Your task to perform on an android device: uninstall "Lyft - Rideshare, Bikes, Scooters & Transit" Image 0: 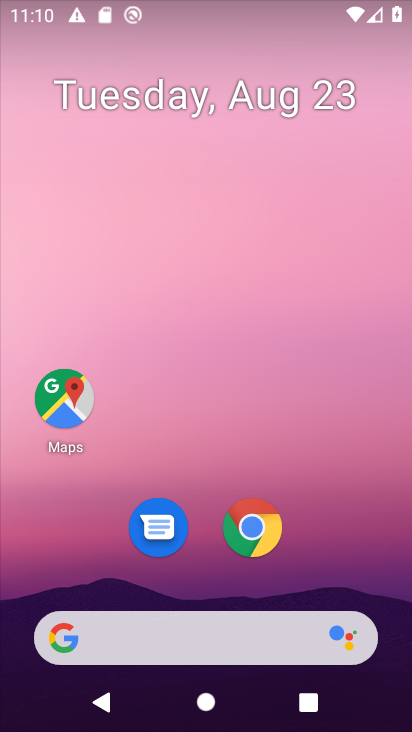
Step 0: drag from (214, 564) to (310, 7)
Your task to perform on an android device: uninstall "Lyft - Rideshare, Bikes, Scooters & Transit" Image 1: 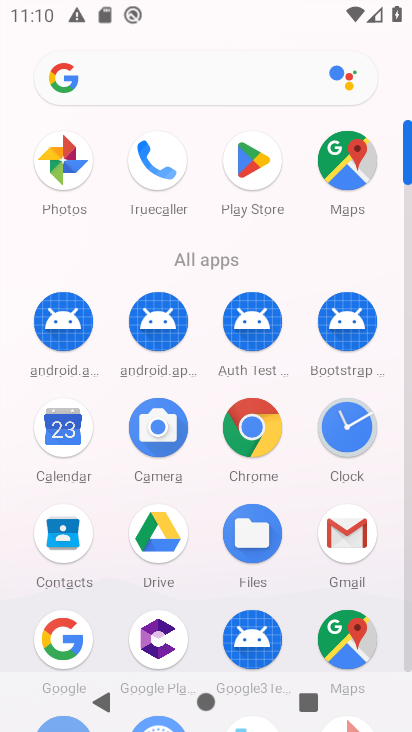
Step 1: click (251, 163)
Your task to perform on an android device: uninstall "Lyft - Rideshare, Bikes, Scooters & Transit" Image 2: 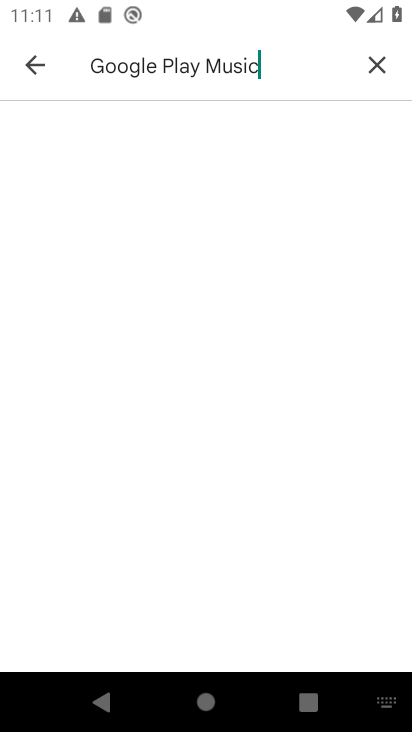
Step 2: click (377, 61)
Your task to perform on an android device: uninstall "Lyft - Rideshare, Bikes, Scooters & Transit" Image 3: 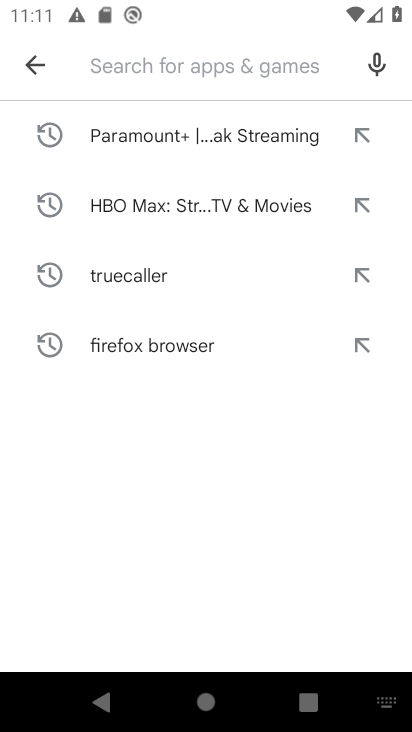
Step 3: press back button
Your task to perform on an android device: uninstall "Lyft - Rideshare, Bikes, Scooters & Transit" Image 4: 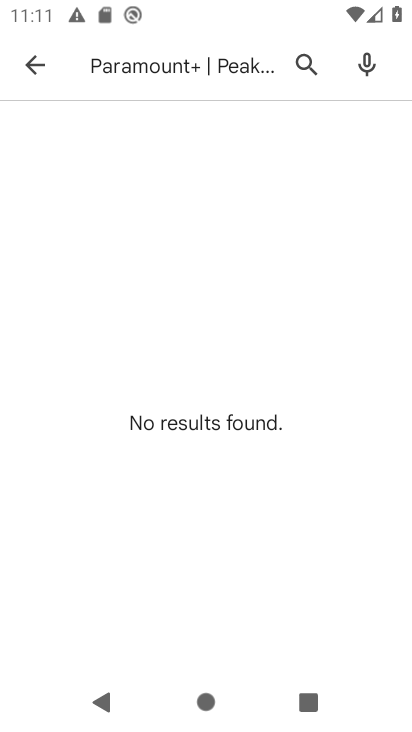
Step 4: click (18, 58)
Your task to perform on an android device: uninstall "Lyft - Rideshare, Bikes, Scooters & Transit" Image 5: 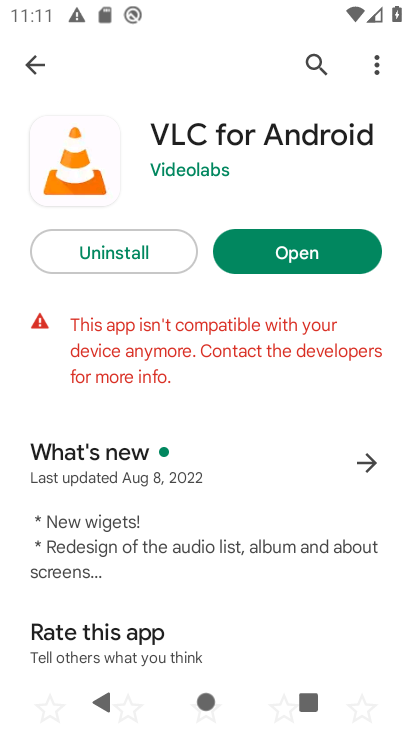
Step 5: press back button
Your task to perform on an android device: uninstall "Lyft - Rideshare, Bikes, Scooters & Transit" Image 6: 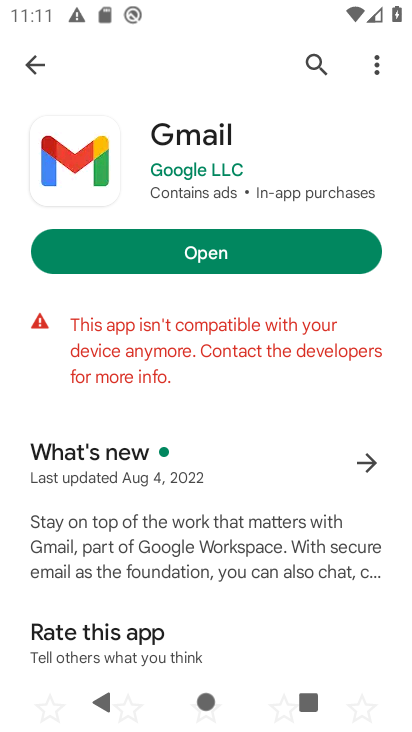
Step 6: press back button
Your task to perform on an android device: uninstall "Lyft - Rideshare, Bikes, Scooters & Transit" Image 7: 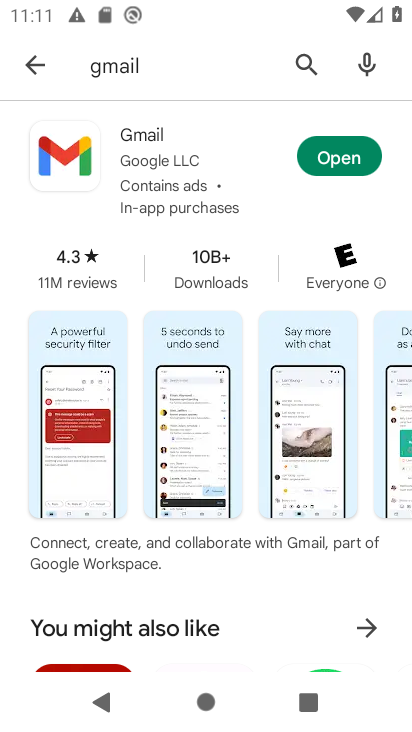
Step 7: press back button
Your task to perform on an android device: uninstall "Lyft - Rideshare, Bikes, Scooters & Transit" Image 8: 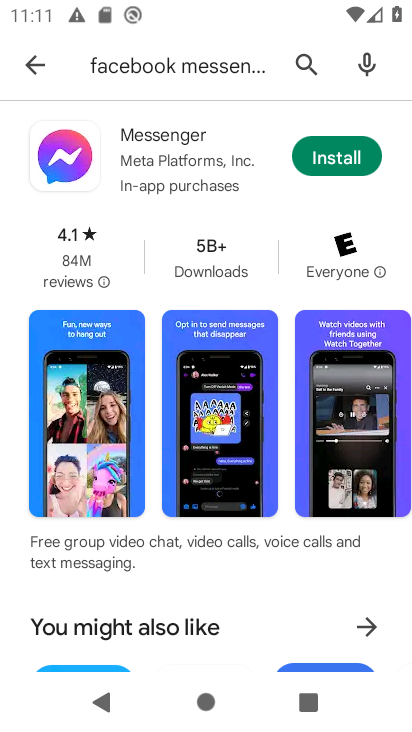
Step 8: press back button
Your task to perform on an android device: uninstall "Lyft - Rideshare, Bikes, Scooters & Transit" Image 9: 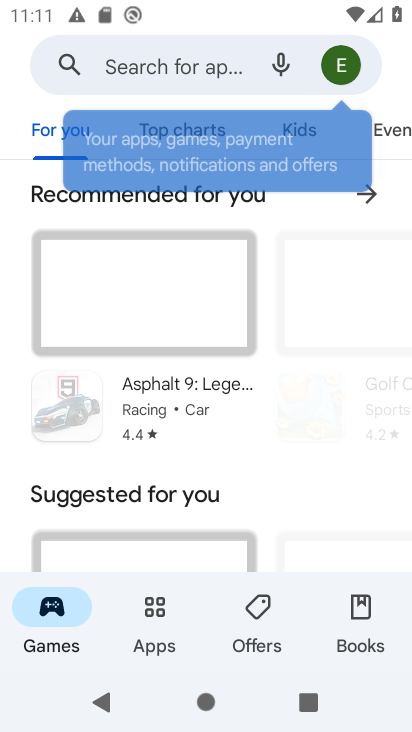
Step 9: click (145, 625)
Your task to perform on an android device: uninstall "Lyft - Rideshare, Bikes, Scooters & Transit" Image 10: 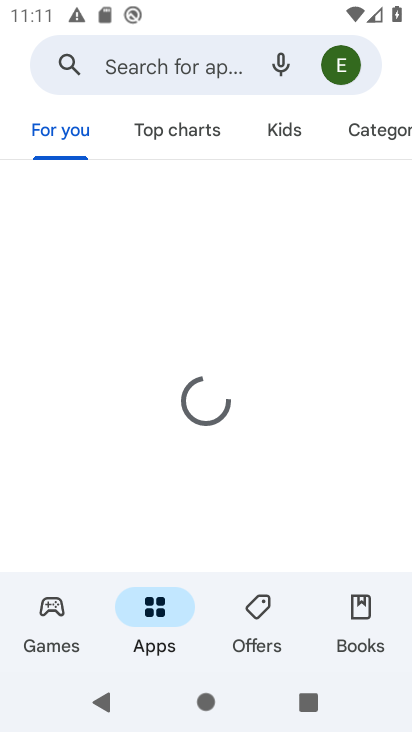
Step 10: click (198, 69)
Your task to perform on an android device: uninstall "Lyft - Rideshare, Bikes, Scooters & Transit" Image 11: 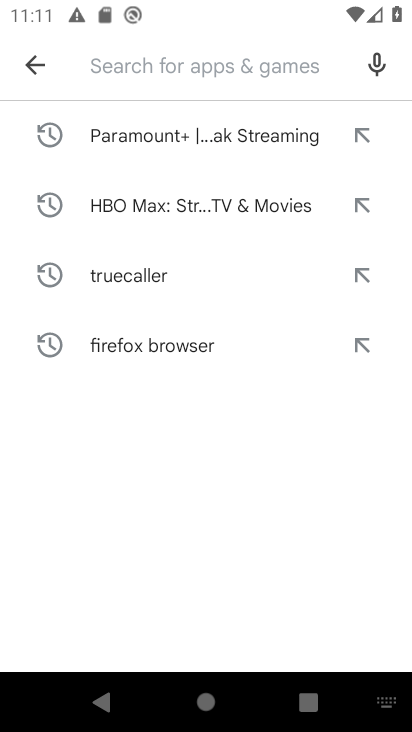
Step 11: type "lyft"
Your task to perform on an android device: uninstall "Lyft - Rideshare, Bikes, Scooters & Transit" Image 12: 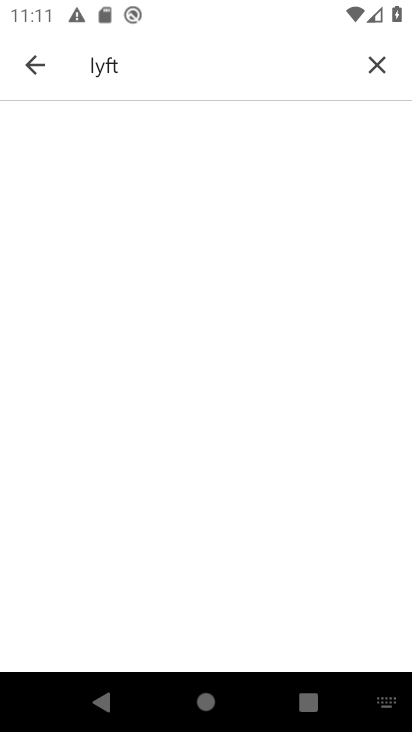
Step 12: task complete